Your task to perform on an android device: Go to Android settings Image 0: 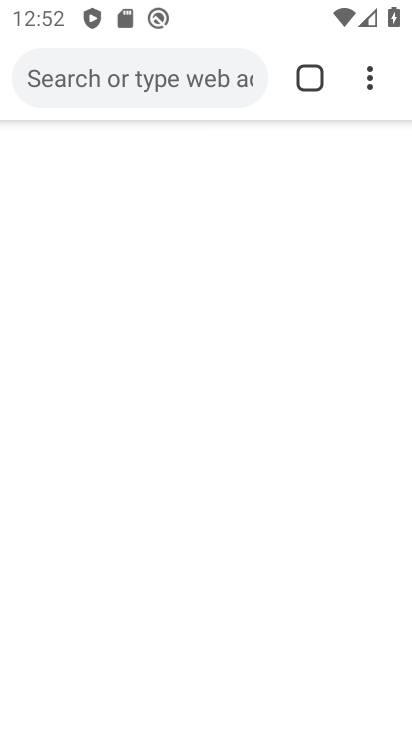
Step 0: drag from (368, 602) to (276, 250)
Your task to perform on an android device: Go to Android settings Image 1: 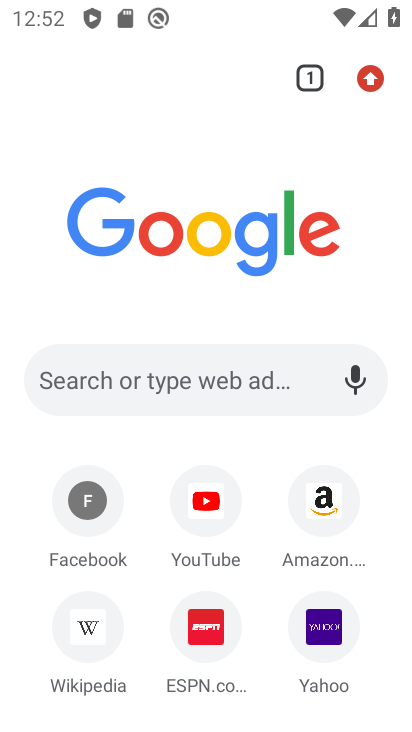
Step 1: press back button
Your task to perform on an android device: Go to Android settings Image 2: 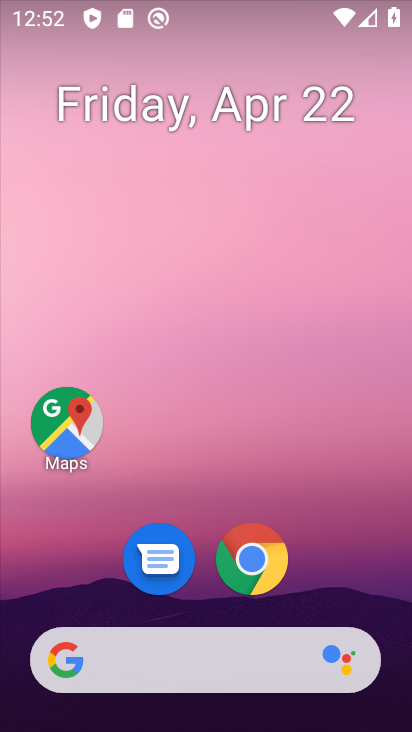
Step 2: drag from (353, 584) to (261, 51)
Your task to perform on an android device: Go to Android settings Image 3: 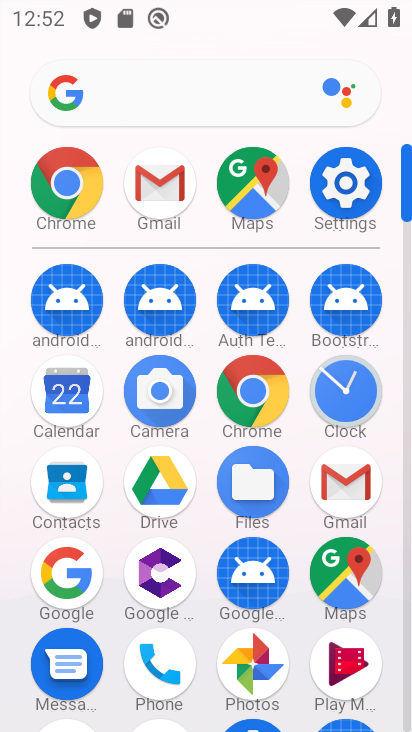
Step 3: click (351, 176)
Your task to perform on an android device: Go to Android settings Image 4: 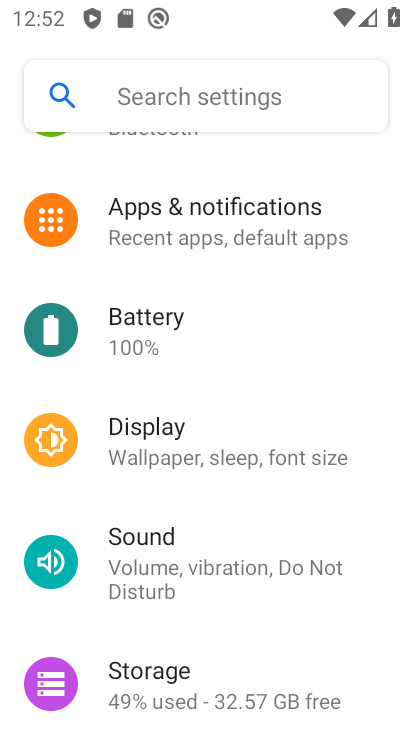
Step 4: drag from (106, 636) to (219, 106)
Your task to perform on an android device: Go to Android settings Image 5: 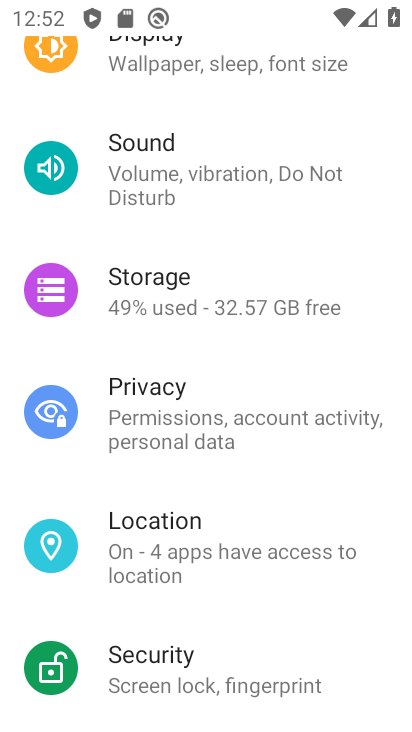
Step 5: drag from (147, 570) to (226, 154)
Your task to perform on an android device: Go to Android settings Image 6: 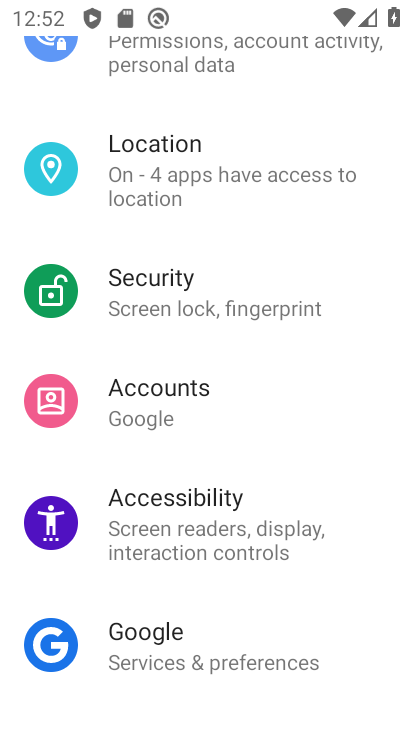
Step 6: drag from (148, 545) to (211, 174)
Your task to perform on an android device: Go to Android settings Image 7: 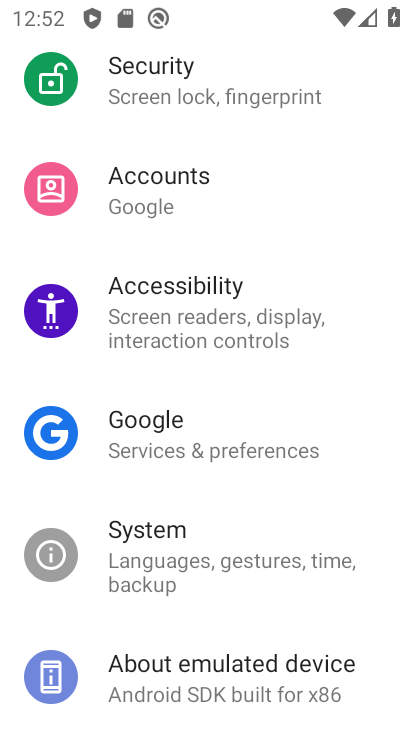
Step 7: click (228, 662)
Your task to perform on an android device: Go to Android settings Image 8: 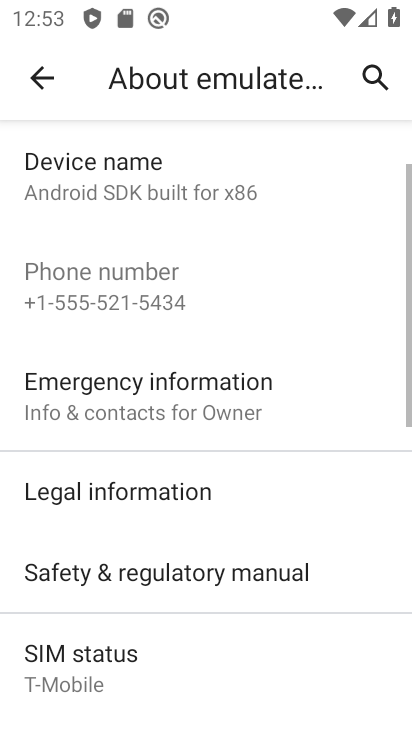
Step 8: drag from (226, 661) to (226, 157)
Your task to perform on an android device: Go to Android settings Image 9: 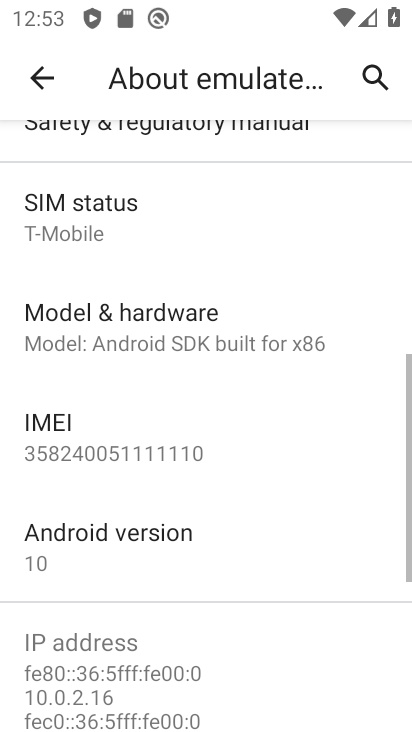
Step 9: click (166, 518)
Your task to perform on an android device: Go to Android settings Image 10: 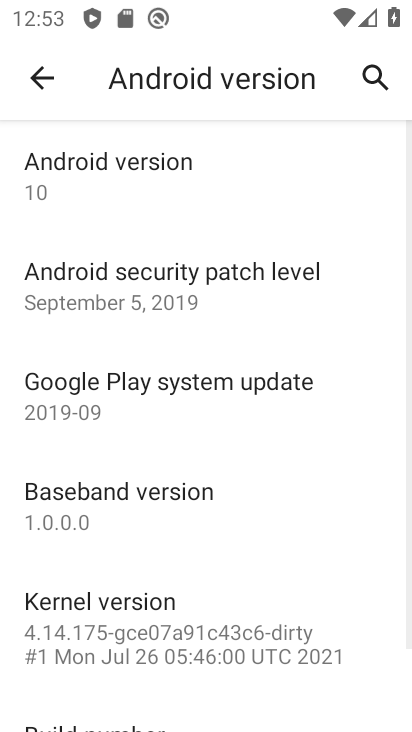
Step 10: task complete